Your task to perform on an android device: visit the assistant section in the google photos Image 0: 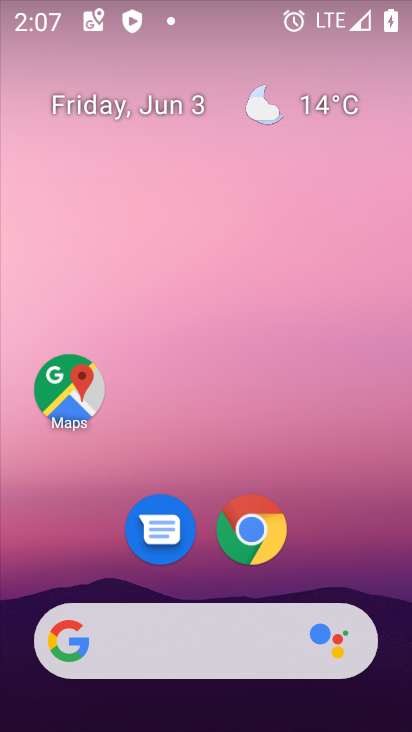
Step 0: drag from (371, 541) to (384, 210)
Your task to perform on an android device: visit the assistant section in the google photos Image 1: 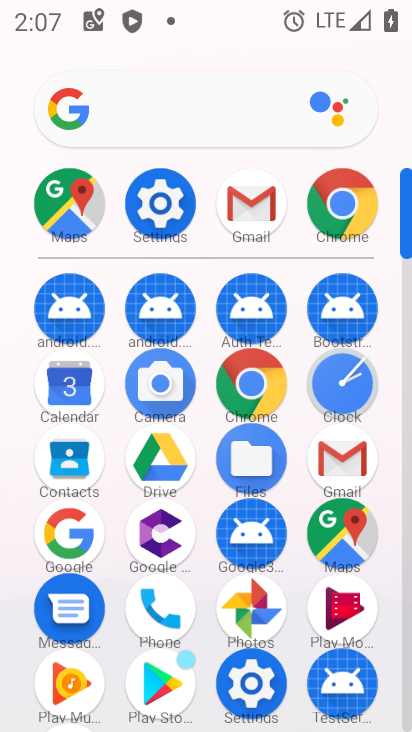
Step 1: click (262, 608)
Your task to perform on an android device: visit the assistant section in the google photos Image 2: 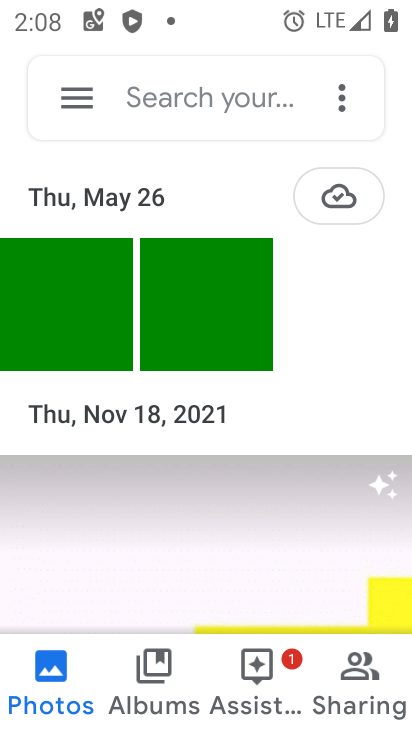
Step 2: click (257, 662)
Your task to perform on an android device: visit the assistant section in the google photos Image 3: 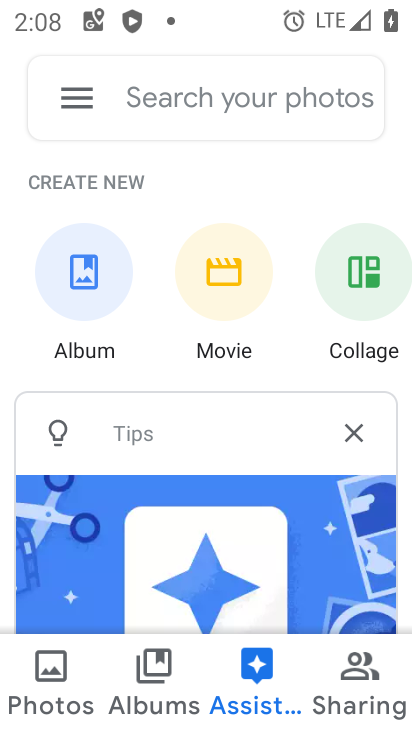
Step 3: task complete